Your task to perform on an android device: open the mobile data screen to see how much data has been used Image 0: 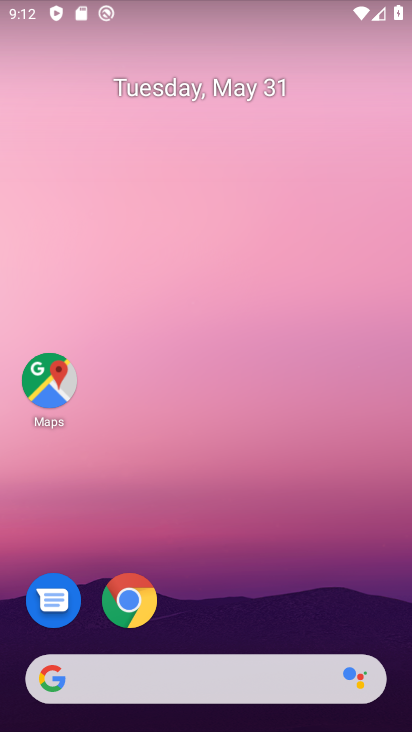
Step 0: drag from (184, 625) to (197, 154)
Your task to perform on an android device: open the mobile data screen to see how much data has been used Image 1: 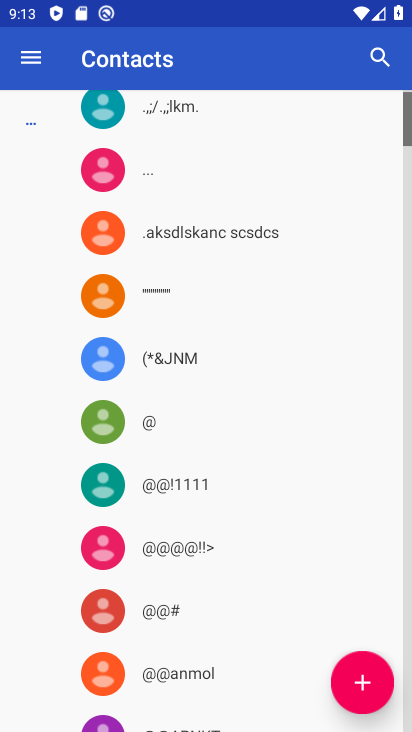
Step 1: press home button
Your task to perform on an android device: open the mobile data screen to see how much data has been used Image 2: 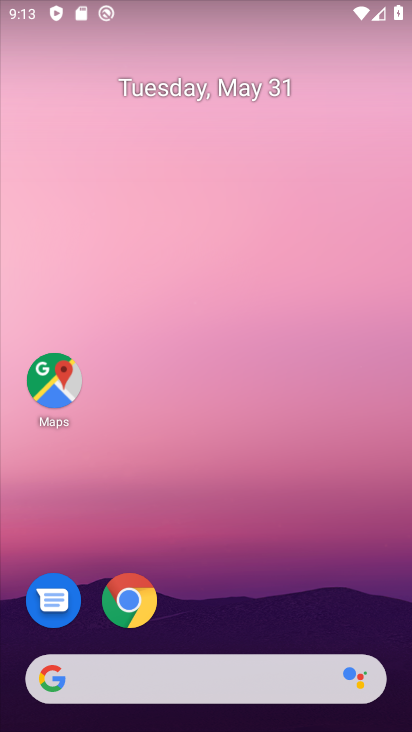
Step 2: drag from (174, 624) to (188, 0)
Your task to perform on an android device: open the mobile data screen to see how much data has been used Image 3: 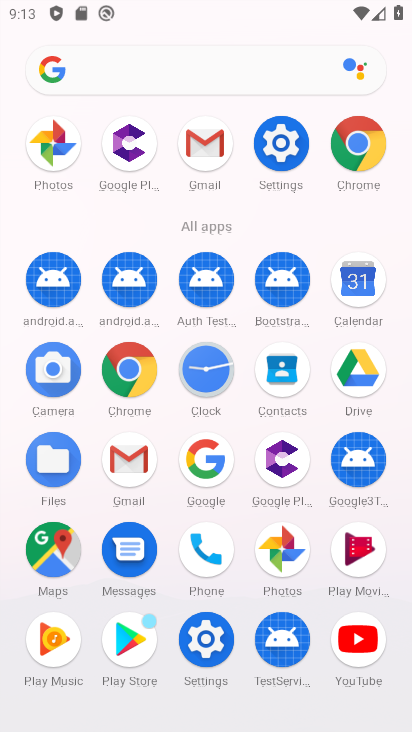
Step 3: click (270, 151)
Your task to perform on an android device: open the mobile data screen to see how much data has been used Image 4: 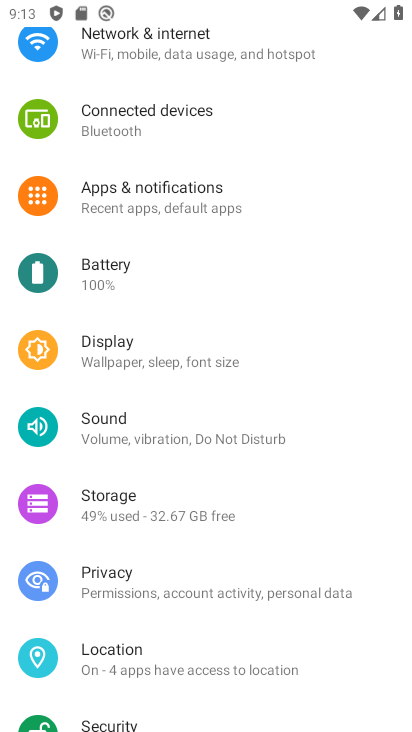
Step 4: click (187, 62)
Your task to perform on an android device: open the mobile data screen to see how much data has been used Image 5: 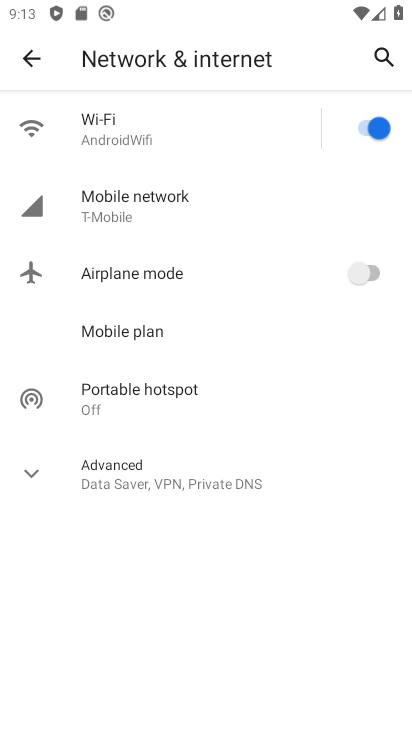
Step 5: click (170, 217)
Your task to perform on an android device: open the mobile data screen to see how much data has been used Image 6: 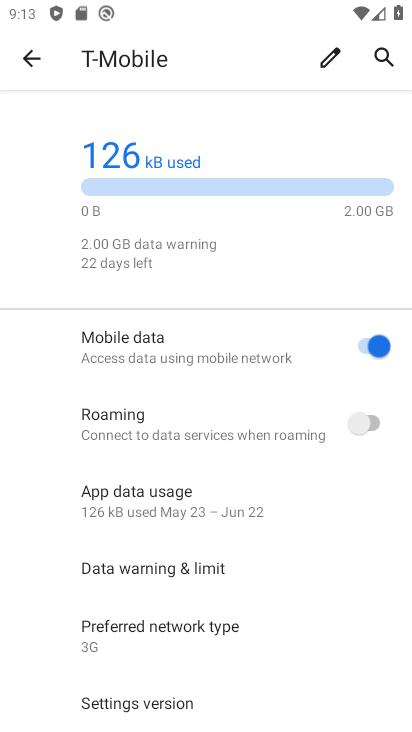
Step 6: task complete